Your task to perform on an android device: open sync settings in chrome Image 0: 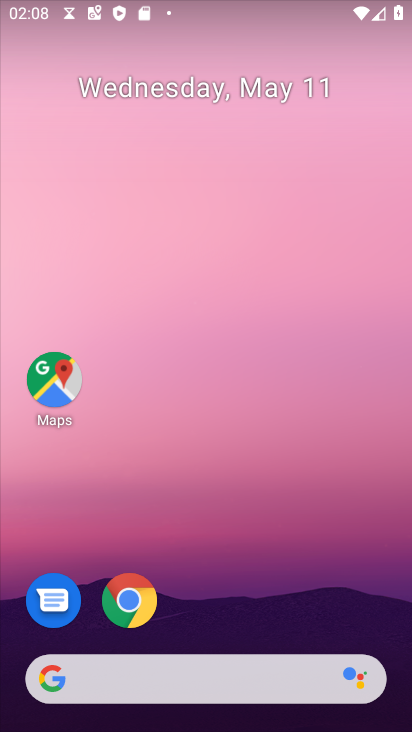
Step 0: drag from (284, 629) to (364, 199)
Your task to perform on an android device: open sync settings in chrome Image 1: 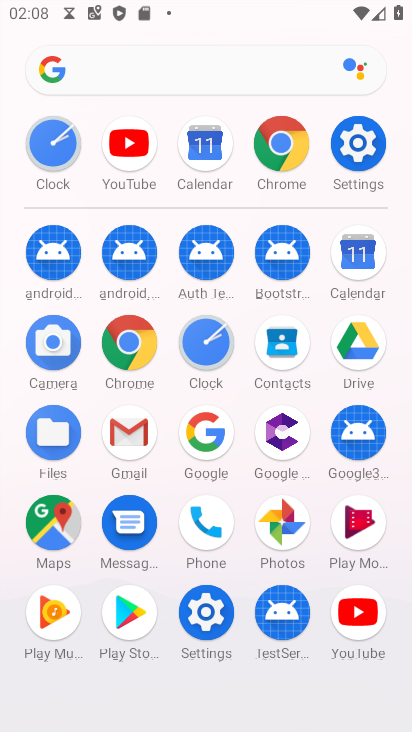
Step 1: click (279, 141)
Your task to perform on an android device: open sync settings in chrome Image 2: 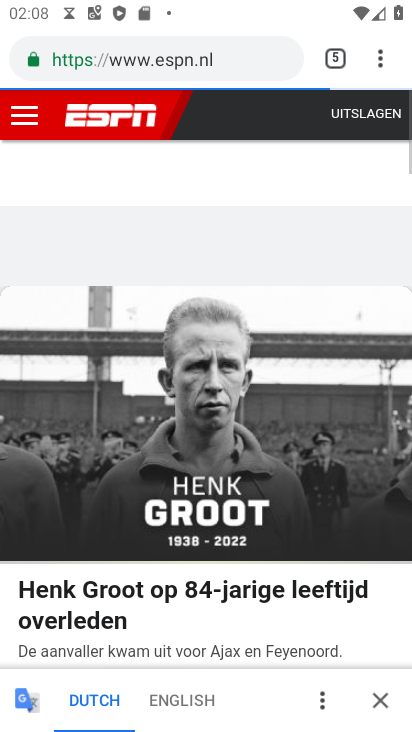
Step 2: click (362, 60)
Your task to perform on an android device: open sync settings in chrome Image 3: 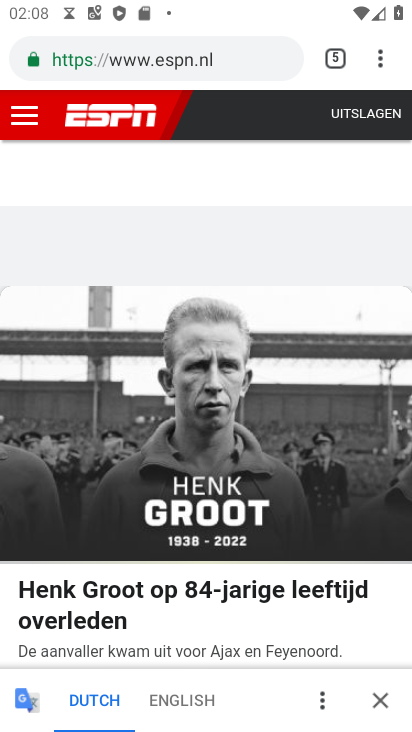
Step 3: click (362, 56)
Your task to perform on an android device: open sync settings in chrome Image 4: 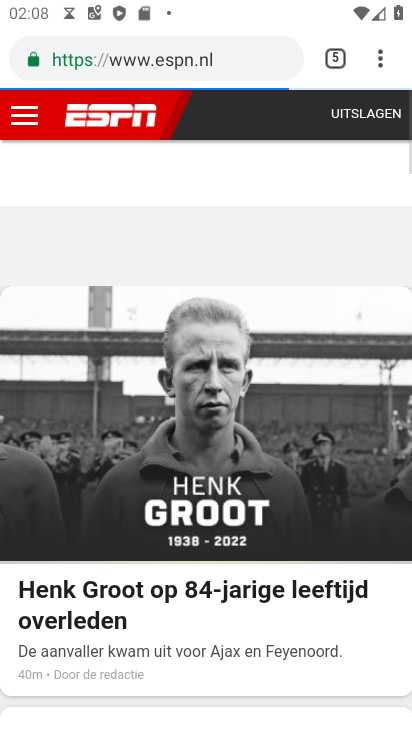
Step 4: click (371, 55)
Your task to perform on an android device: open sync settings in chrome Image 5: 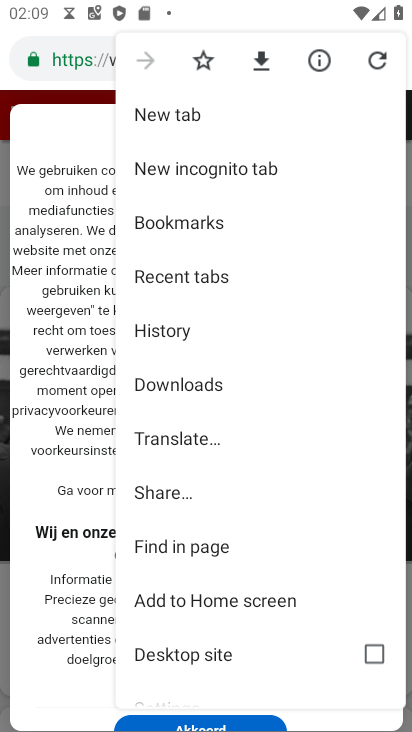
Step 5: drag from (212, 609) to (272, 246)
Your task to perform on an android device: open sync settings in chrome Image 6: 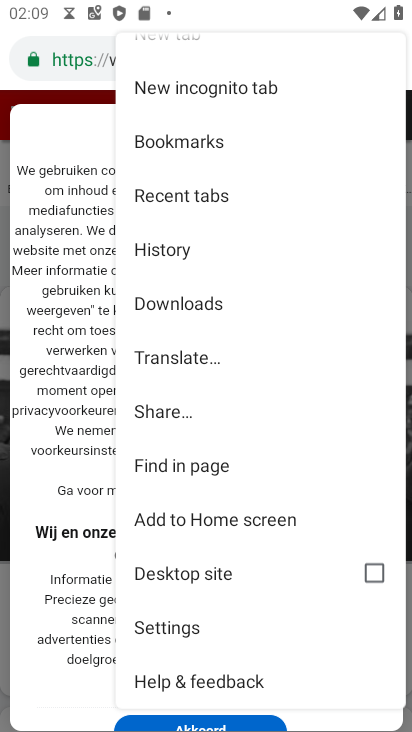
Step 6: click (195, 629)
Your task to perform on an android device: open sync settings in chrome Image 7: 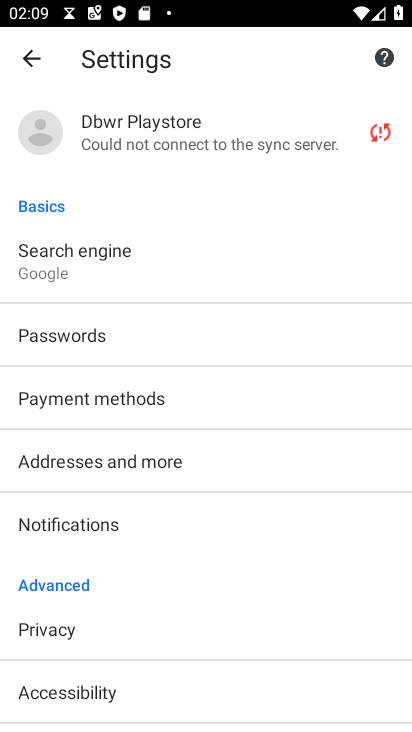
Step 7: click (144, 141)
Your task to perform on an android device: open sync settings in chrome Image 8: 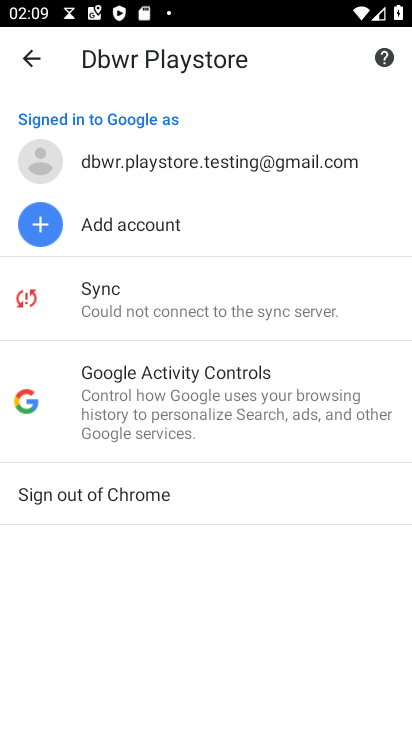
Step 8: click (172, 296)
Your task to perform on an android device: open sync settings in chrome Image 9: 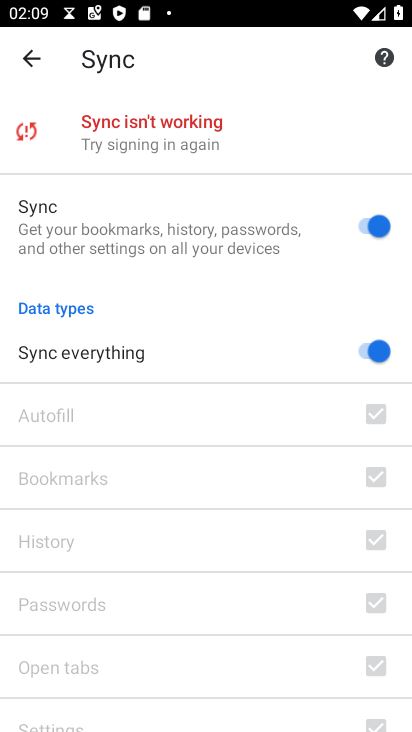
Step 9: task complete